Your task to perform on an android device: turn on translation in the chrome app Image 0: 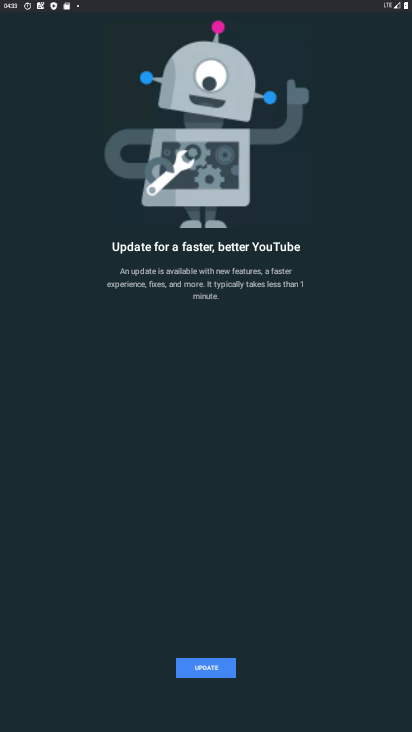
Step 0: press home button
Your task to perform on an android device: turn on translation in the chrome app Image 1: 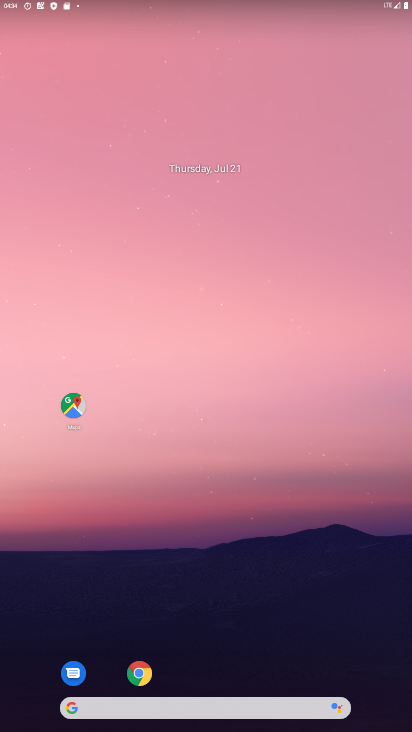
Step 1: drag from (216, 634) to (280, 57)
Your task to perform on an android device: turn on translation in the chrome app Image 2: 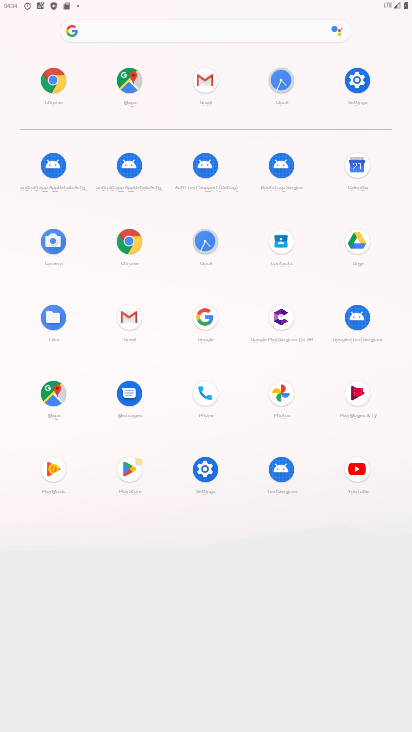
Step 2: click (53, 74)
Your task to perform on an android device: turn on translation in the chrome app Image 3: 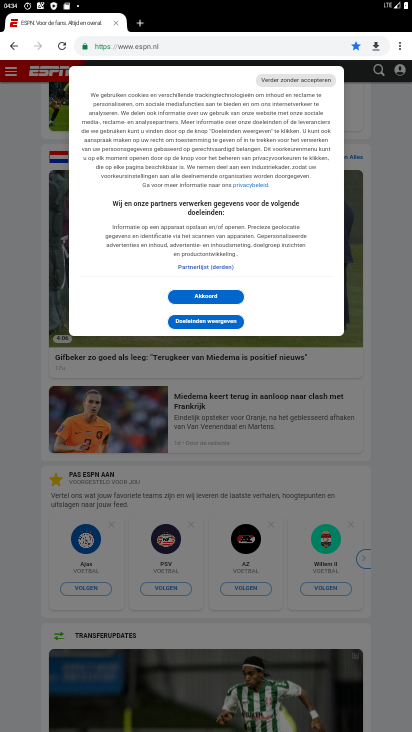
Step 3: drag from (403, 44) to (303, 315)
Your task to perform on an android device: turn on translation in the chrome app Image 4: 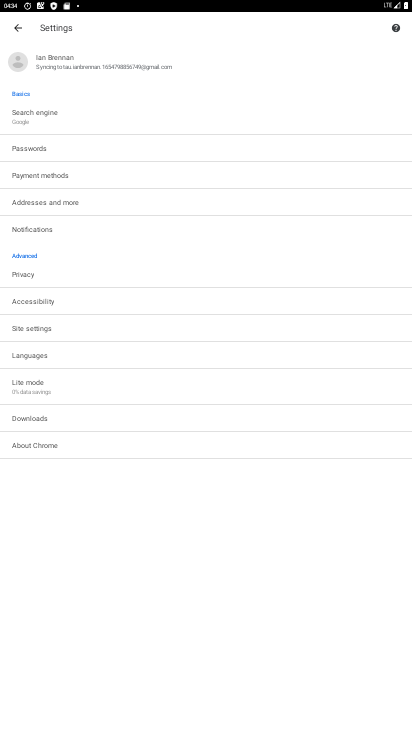
Step 4: click (34, 354)
Your task to perform on an android device: turn on translation in the chrome app Image 5: 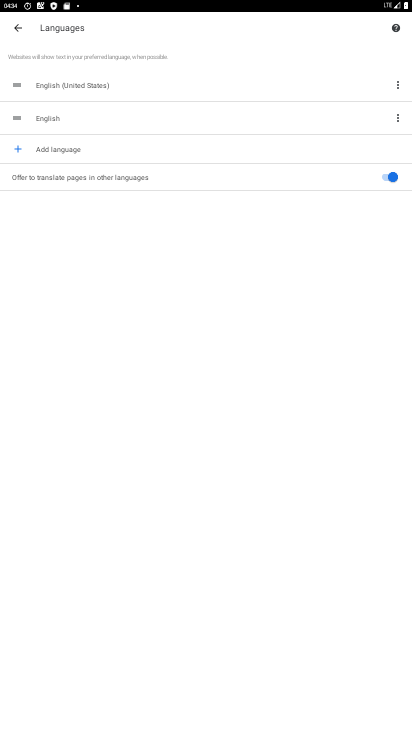
Step 5: task complete